Your task to perform on an android device: open app "Microsoft Excel" (install if not already installed) Image 0: 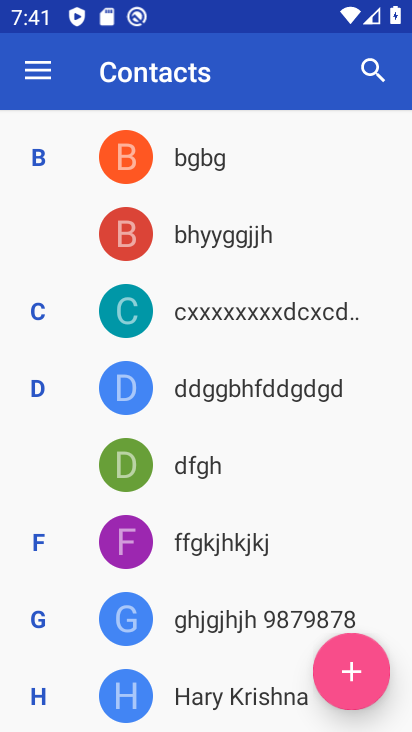
Step 0: press home button
Your task to perform on an android device: open app "Microsoft Excel" (install if not already installed) Image 1: 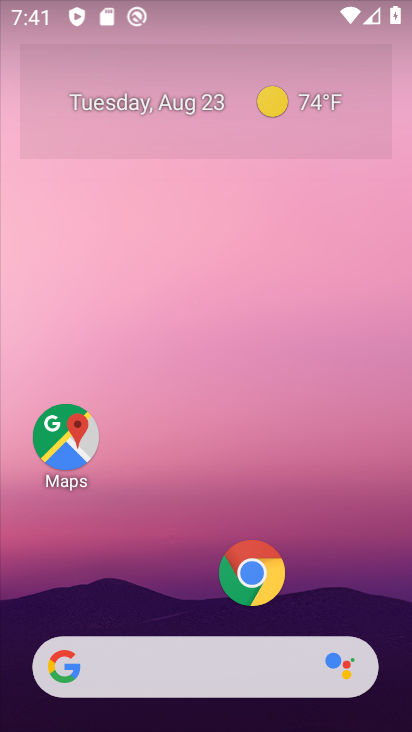
Step 1: drag from (202, 567) to (210, 14)
Your task to perform on an android device: open app "Microsoft Excel" (install if not already installed) Image 2: 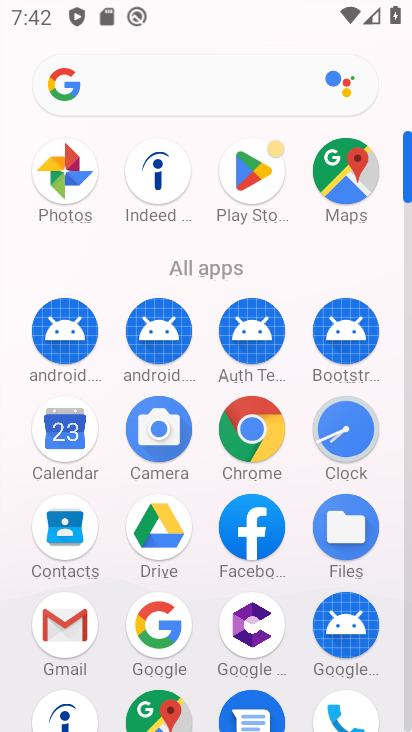
Step 2: click (242, 172)
Your task to perform on an android device: open app "Microsoft Excel" (install if not already installed) Image 3: 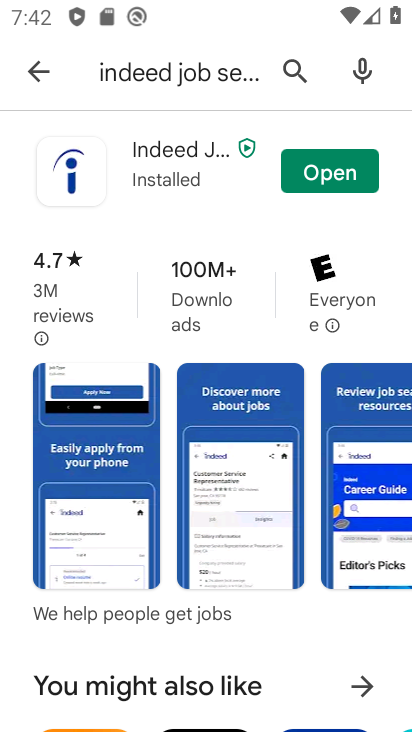
Step 3: click (33, 68)
Your task to perform on an android device: open app "Microsoft Excel" (install if not already installed) Image 4: 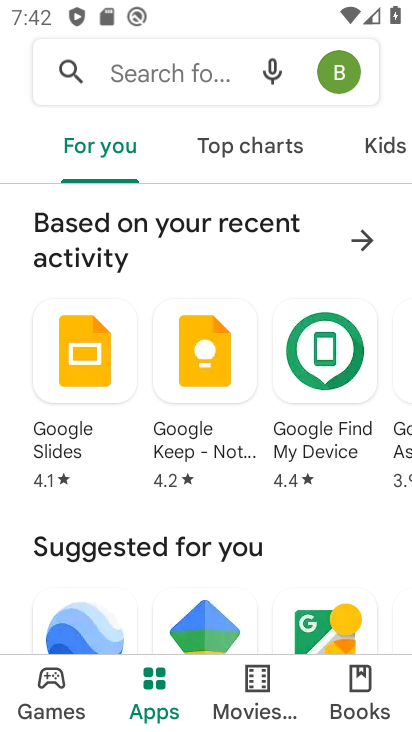
Step 4: click (173, 78)
Your task to perform on an android device: open app "Microsoft Excel" (install if not already installed) Image 5: 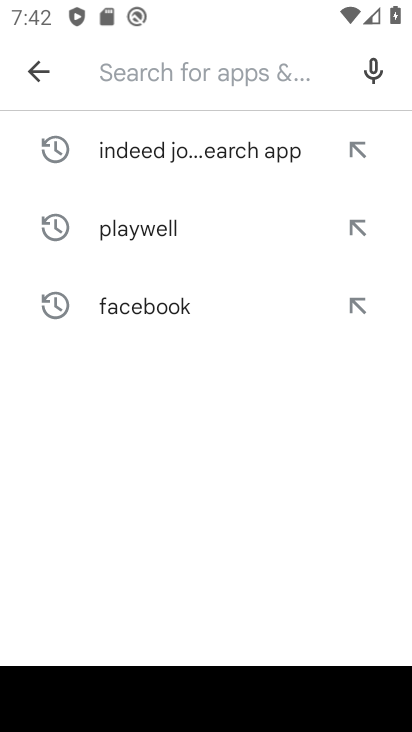
Step 5: type "Microsoft Excel"
Your task to perform on an android device: open app "Microsoft Excel" (install if not already installed) Image 6: 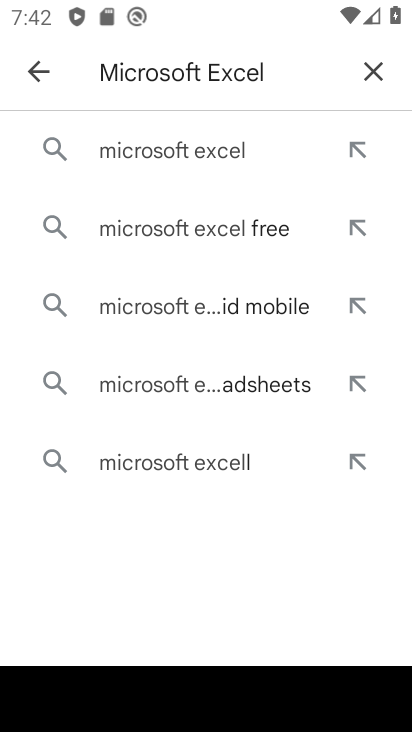
Step 6: click (182, 149)
Your task to perform on an android device: open app "Microsoft Excel" (install if not already installed) Image 7: 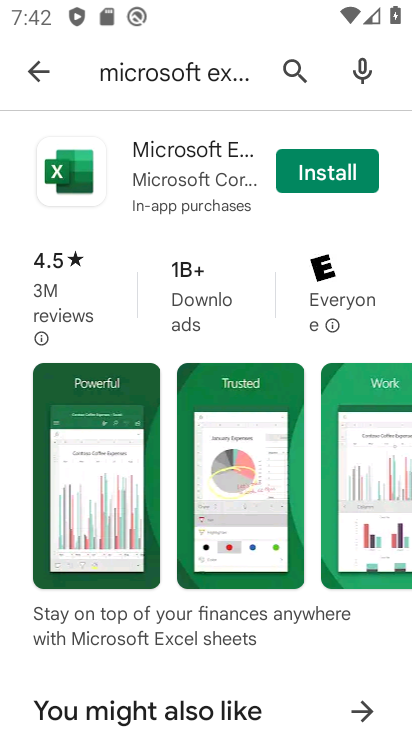
Step 7: click (330, 168)
Your task to perform on an android device: open app "Microsoft Excel" (install if not already installed) Image 8: 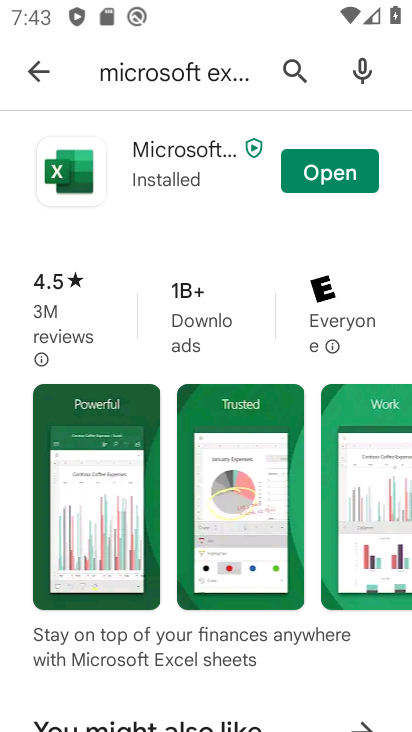
Step 8: click (330, 168)
Your task to perform on an android device: open app "Microsoft Excel" (install if not already installed) Image 9: 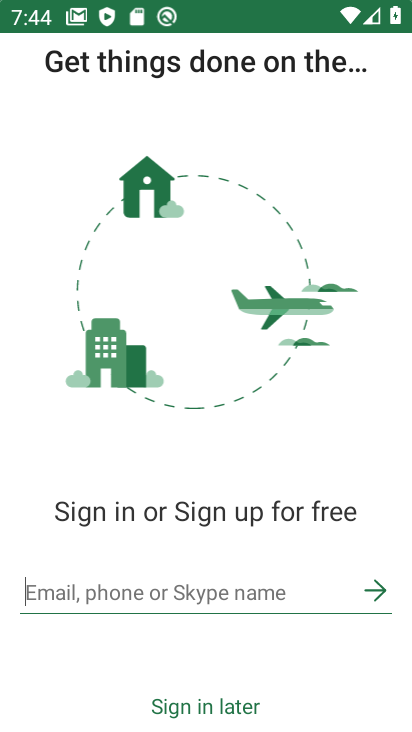
Step 9: task complete